Your task to perform on an android device: Open the phone app and click the voicemail tab. Image 0: 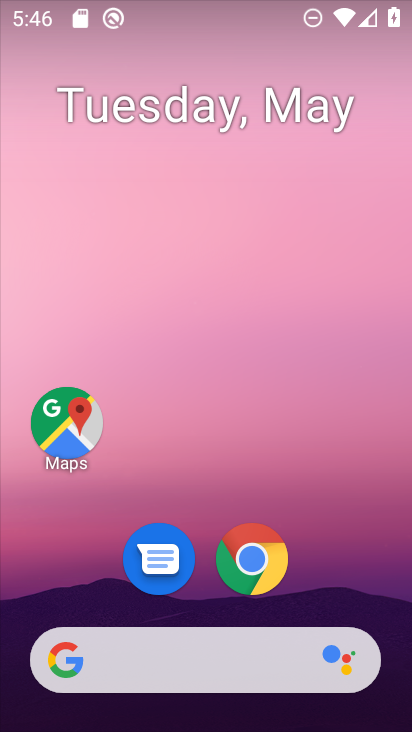
Step 0: drag from (193, 597) to (322, 172)
Your task to perform on an android device: Open the phone app and click the voicemail tab. Image 1: 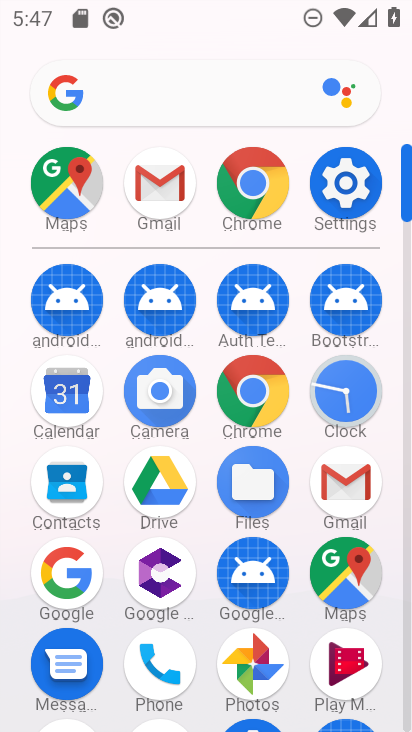
Step 1: click (162, 669)
Your task to perform on an android device: Open the phone app and click the voicemail tab. Image 2: 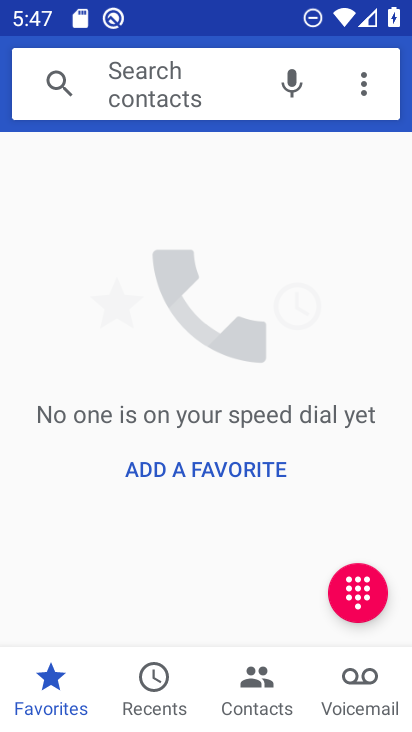
Step 2: click (347, 708)
Your task to perform on an android device: Open the phone app and click the voicemail tab. Image 3: 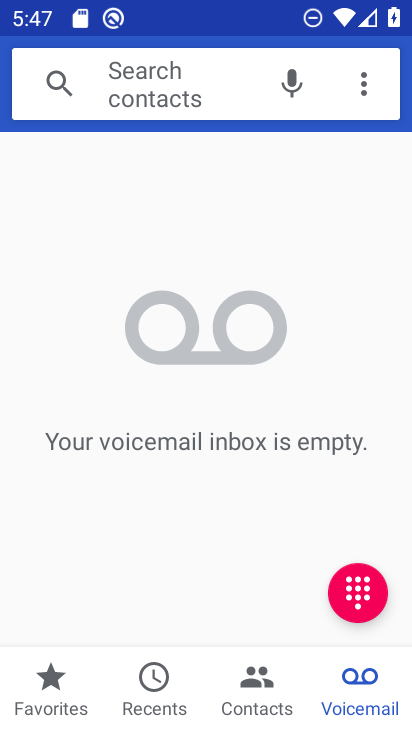
Step 3: task complete